Your task to perform on an android device: Open calendar and show me the fourth week of next month Image 0: 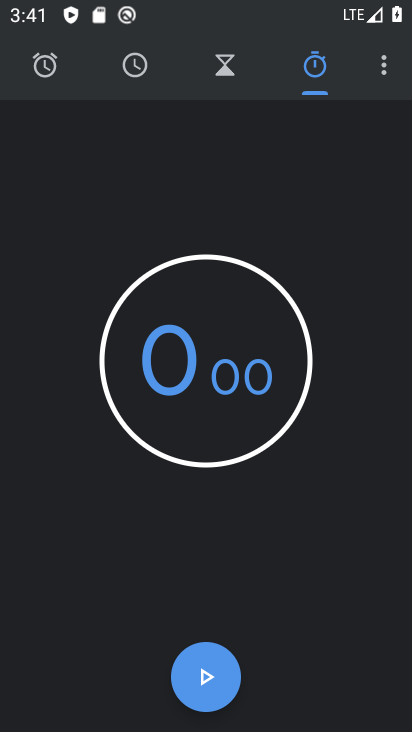
Step 0: press home button
Your task to perform on an android device: Open calendar and show me the fourth week of next month Image 1: 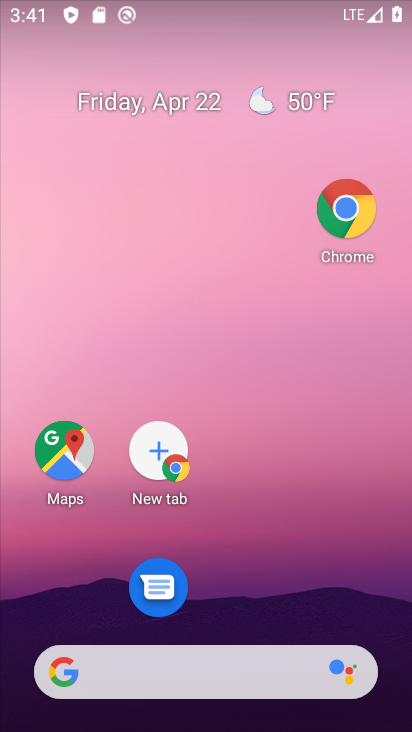
Step 1: click (124, 101)
Your task to perform on an android device: Open calendar and show me the fourth week of next month Image 2: 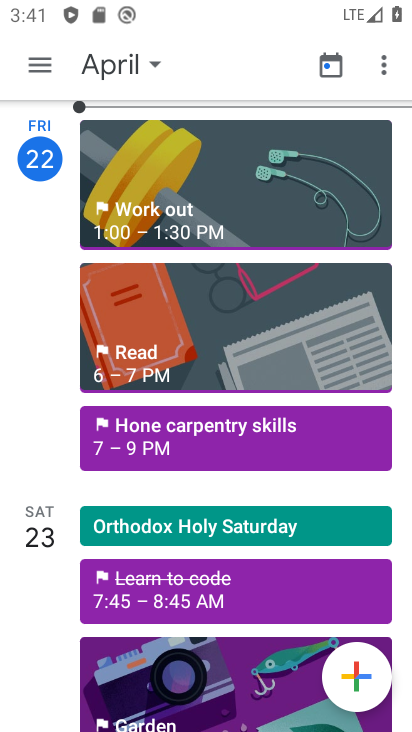
Step 2: click (149, 78)
Your task to perform on an android device: Open calendar and show me the fourth week of next month Image 3: 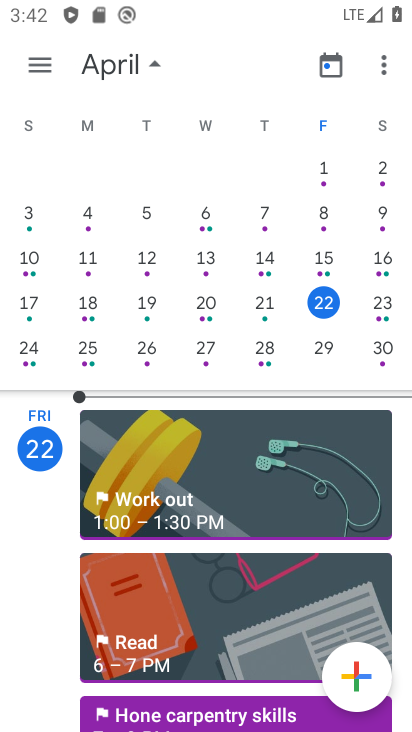
Step 3: drag from (381, 313) to (25, 319)
Your task to perform on an android device: Open calendar and show me the fourth week of next month Image 4: 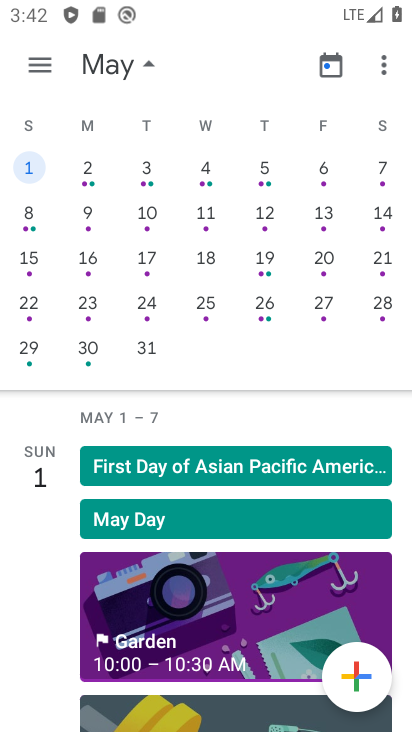
Step 4: click (257, 300)
Your task to perform on an android device: Open calendar and show me the fourth week of next month Image 5: 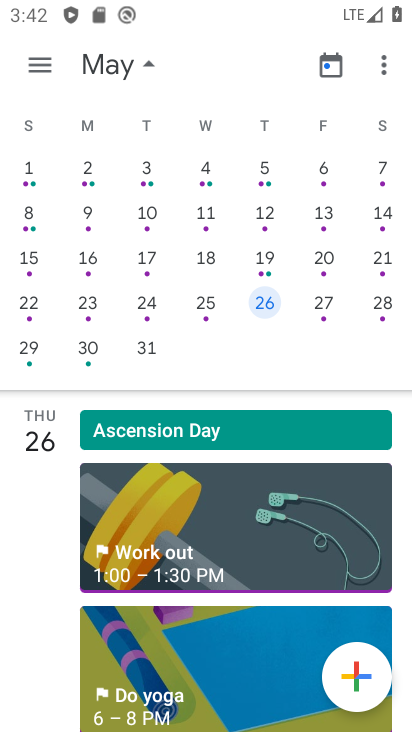
Step 5: task complete